Your task to perform on an android device: read, delete, or share a saved page in the chrome app Image 0: 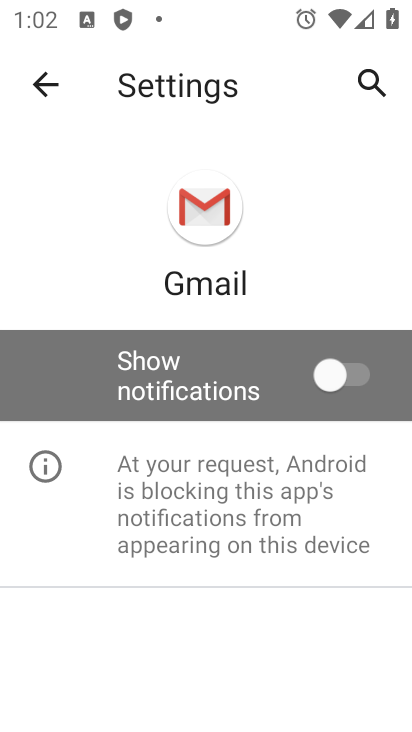
Step 0: press home button
Your task to perform on an android device: read, delete, or share a saved page in the chrome app Image 1: 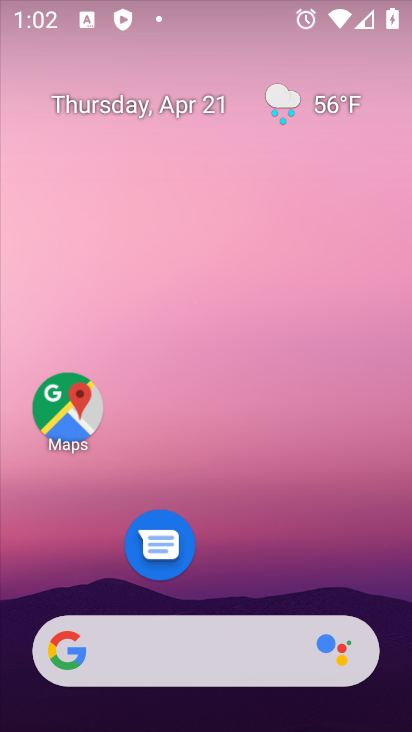
Step 1: drag from (224, 510) to (262, 177)
Your task to perform on an android device: read, delete, or share a saved page in the chrome app Image 2: 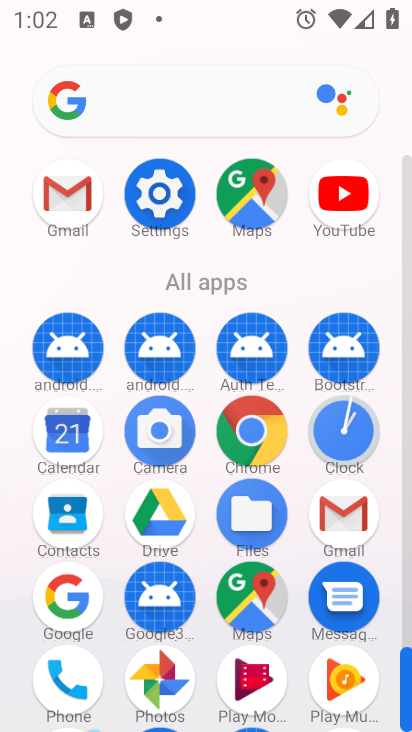
Step 2: click (248, 446)
Your task to perform on an android device: read, delete, or share a saved page in the chrome app Image 3: 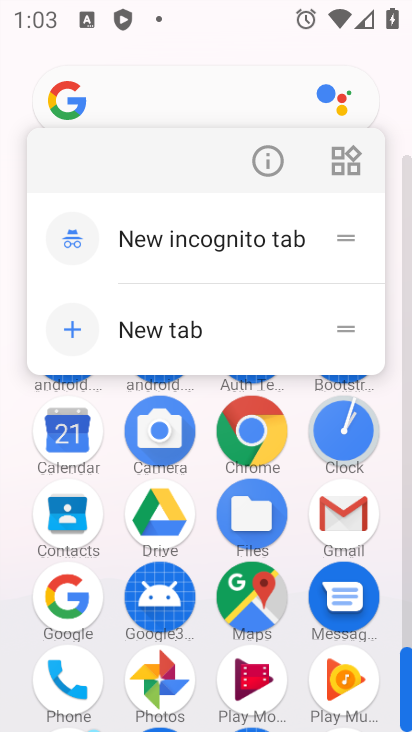
Step 3: click (271, 433)
Your task to perform on an android device: read, delete, or share a saved page in the chrome app Image 4: 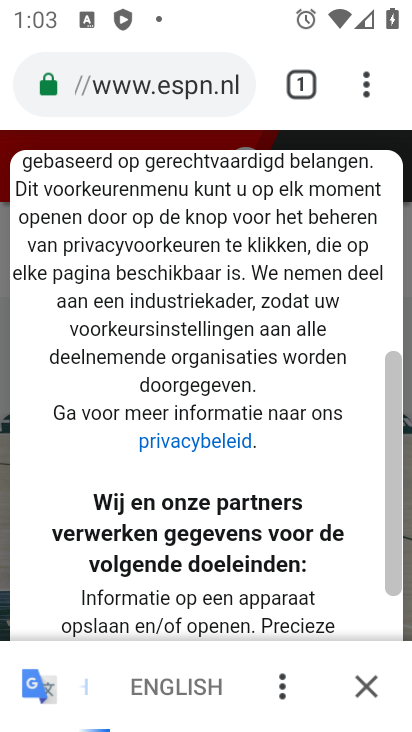
Step 4: click (367, 686)
Your task to perform on an android device: read, delete, or share a saved page in the chrome app Image 5: 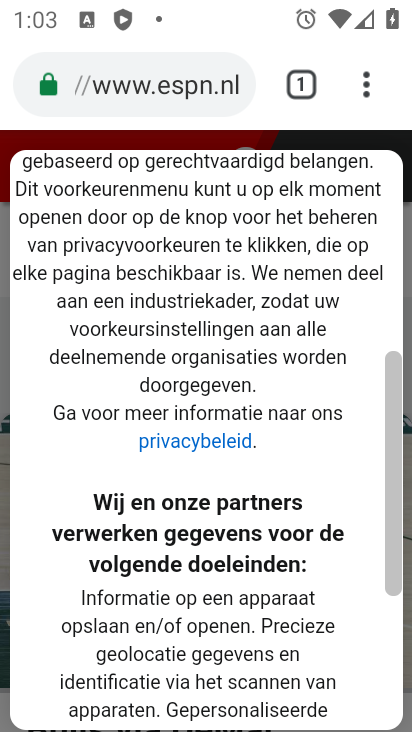
Step 5: click (362, 91)
Your task to perform on an android device: read, delete, or share a saved page in the chrome app Image 6: 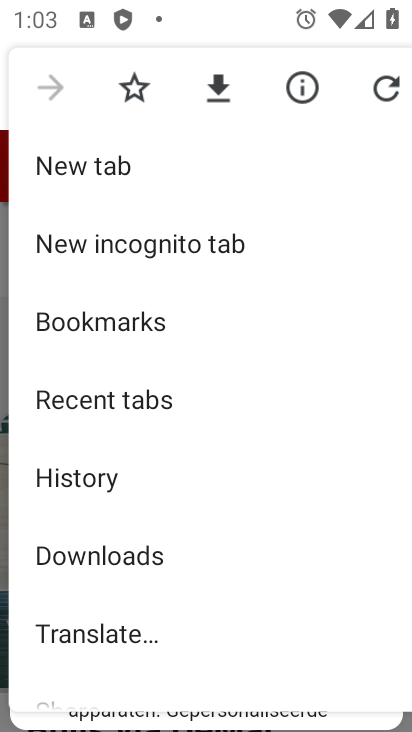
Step 6: drag from (191, 635) to (152, 377)
Your task to perform on an android device: read, delete, or share a saved page in the chrome app Image 7: 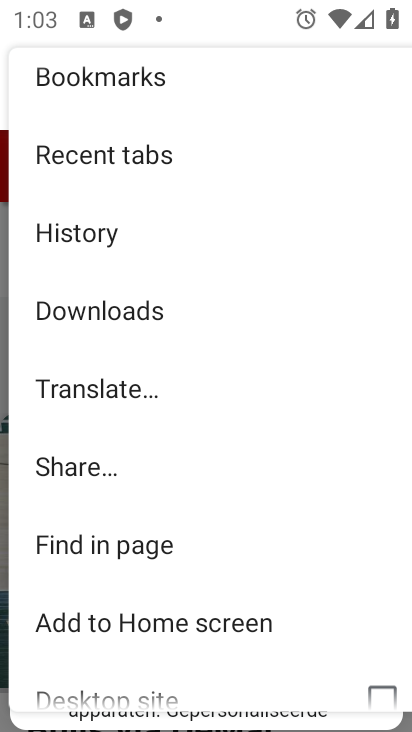
Step 7: drag from (170, 558) to (149, 444)
Your task to perform on an android device: read, delete, or share a saved page in the chrome app Image 8: 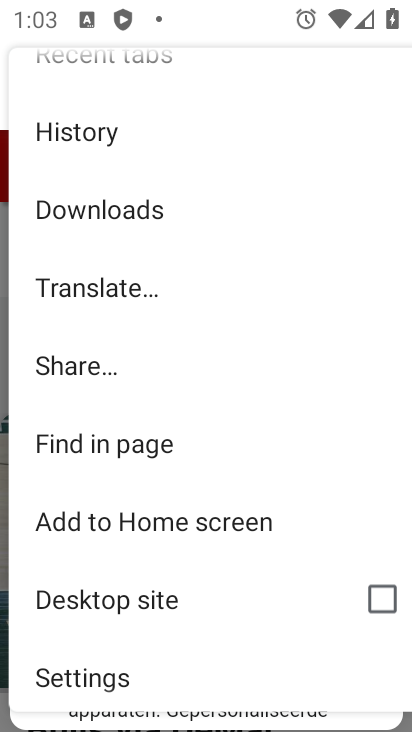
Step 8: click (108, 221)
Your task to perform on an android device: read, delete, or share a saved page in the chrome app Image 9: 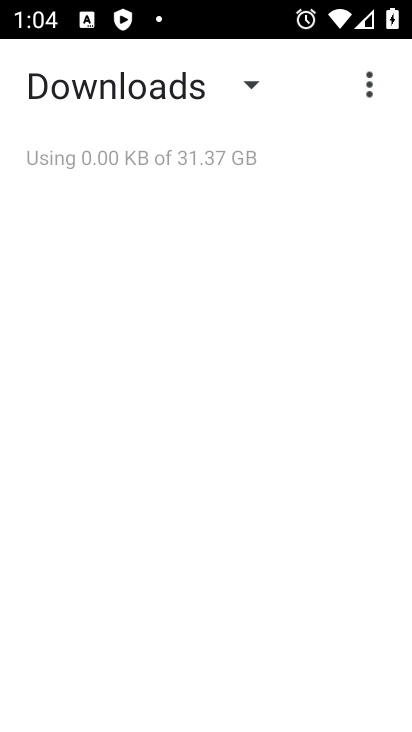
Step 9: click (243, 91)
Your task to perform on an android device: read, delete, or share a saved page in the chrome app Image 10: 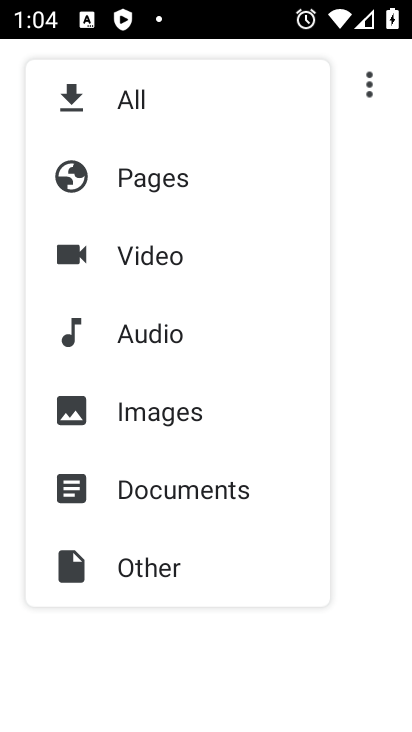
Step 10: click (175, 195)
Your task to perform on an android device: read, delete, or share a saved page in the chrome app Image 11: 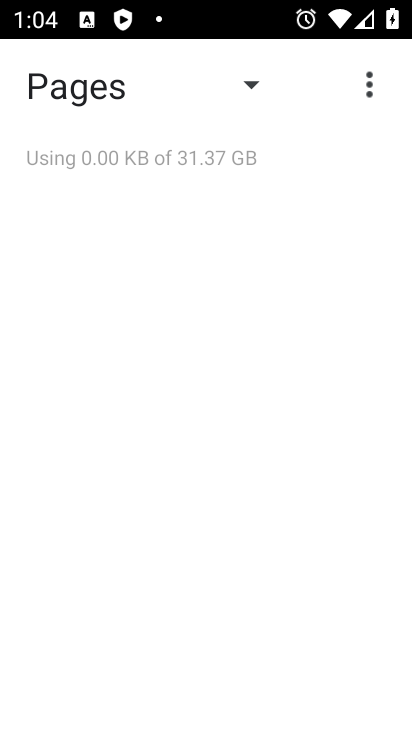
Step 11: task complete